Your task to perform on an android device: open a bookmark in the chrome app Image 0: 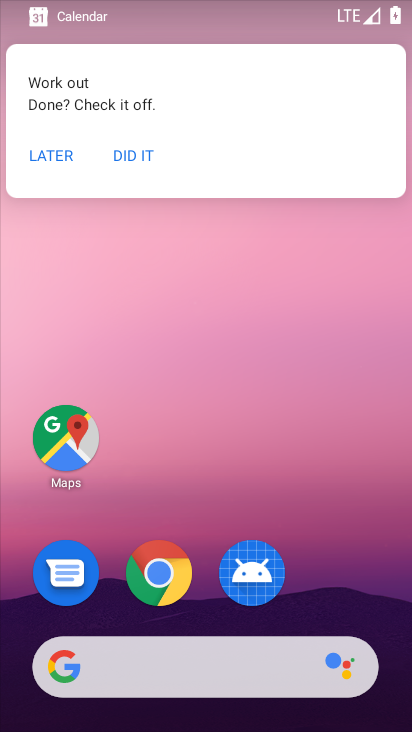
Step 0: click (161, 580)
Your task to perform on an android device: open a bookmark in the chrome app Image 1: 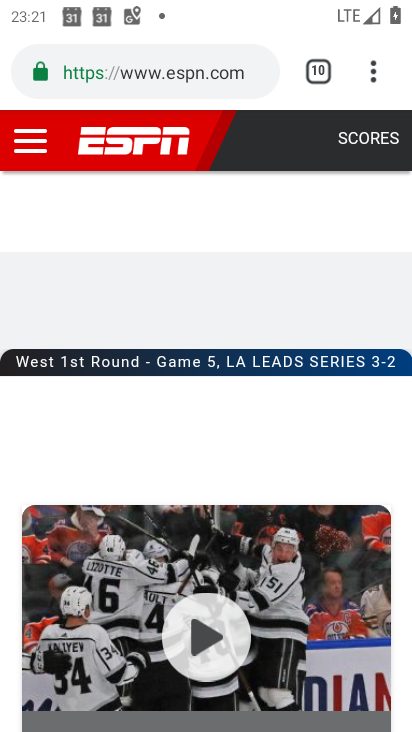
Step 1: click (132, 149)
Your task to perform on an android device: open a bookmark in the chrome app Image 2: 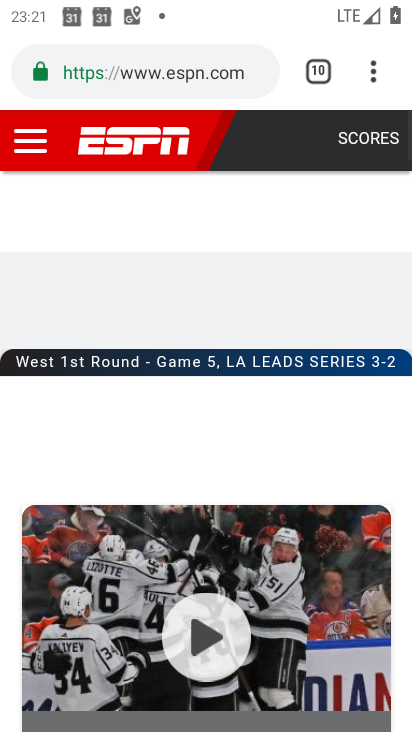
Step 2: click (373, 71)
Your task to perform on an android device: open a bookmark in the chrome app Image 3: 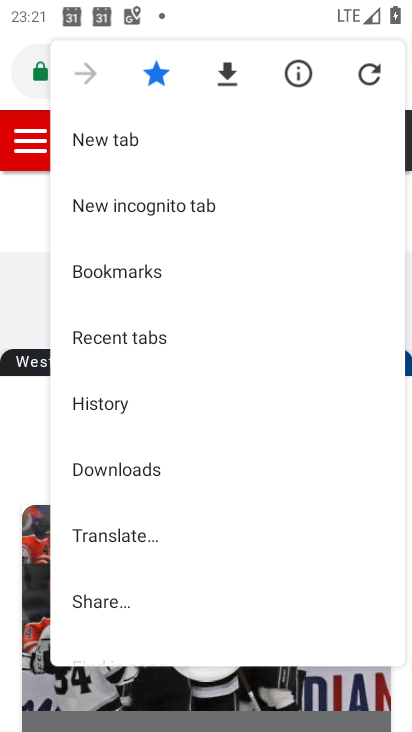
Step 3: click (115, 271)
Your task to perform on an android device: open a bookmark in the chrome app Image 4: 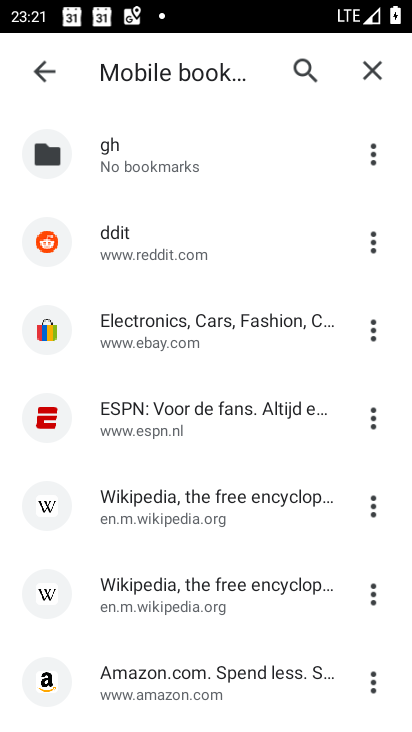
Step 4: task complete